Your task to perform on an android device: Clear all items from cart on ebay.com. Search for asus zenbook on ebay.com, select the first entry, and add it to the cart. Image 0: 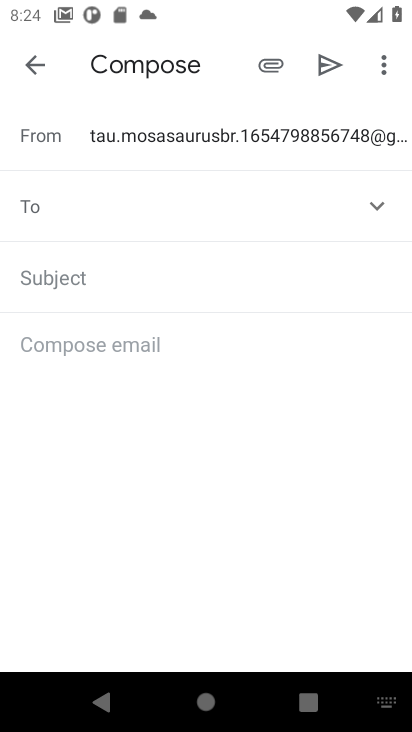
Step 0: press home button
Your task to perform on an android device: Clear all items from cart on ebay.com. Search for asus zenbook on ebay.com, select the first entry, and add it to the cart. Image 1: 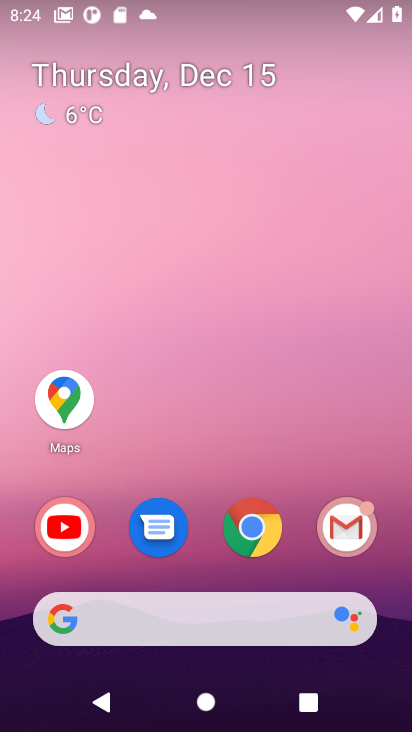
Step 1: click (235, 543)
Your task to perform on an android device: Clear all items from cart on ebay.com. Search for asus zenbook on ebay.com, select the first entry, and add it to the cart. Image 2: 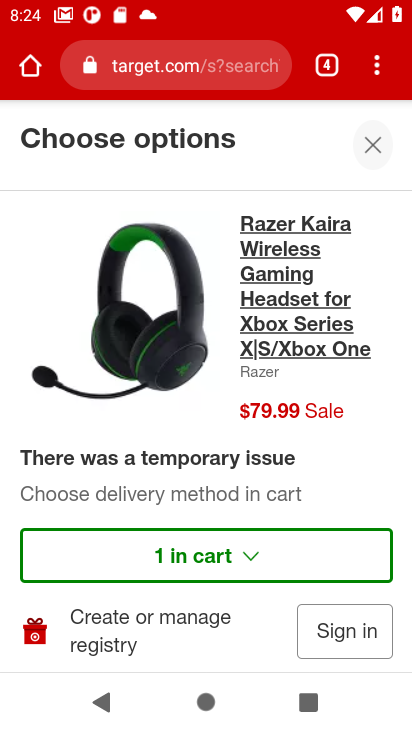
Step 2: click (233, 65)
Your task to perform on an android device: Clear all items from cart on ebay.com. Search for asus zenbook on ebay.com, select the first entry, and add it to the cart. Image 3: 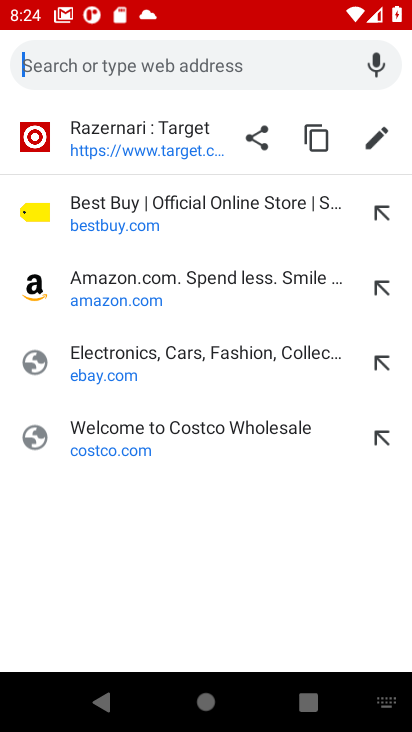
Step 3: type "ebay"
Your task to perform on an android device: Clear all items from cart on ebay.com. Search for asus zenbook on ebay.com, select the first entry, and add it to the cart. Image 4: 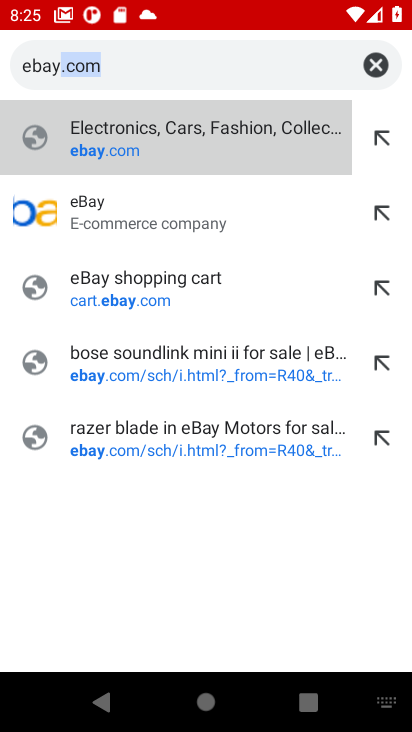
Step 4: click (182, 153)
Your task to perform on an android device: Clear all items from cart on ebay.com. Search for asus zenbook on ebay.com, select the first entry, and add it to the cart. Image 5: 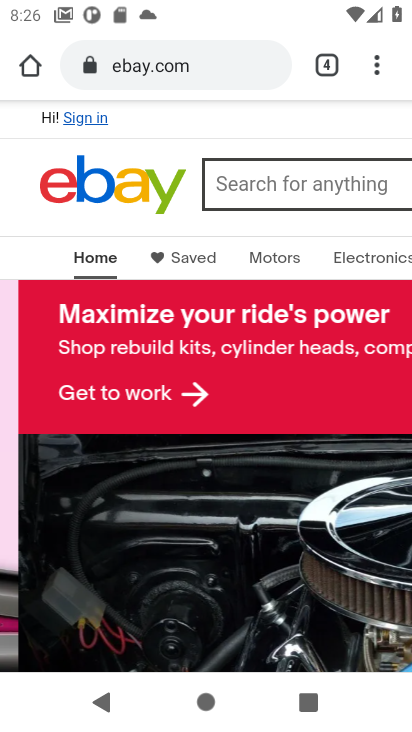
Step 5: task complete